Your task to perform on an android device: Check the news Image 0: 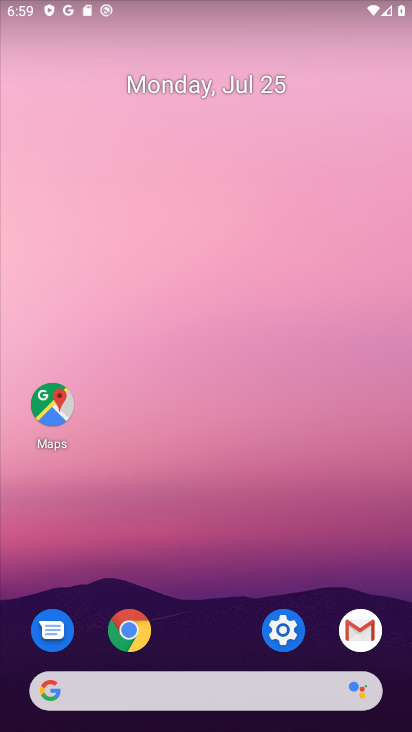
Step 0: click (213, 682)
Your task to perform on an android device: Check the news Image 1: 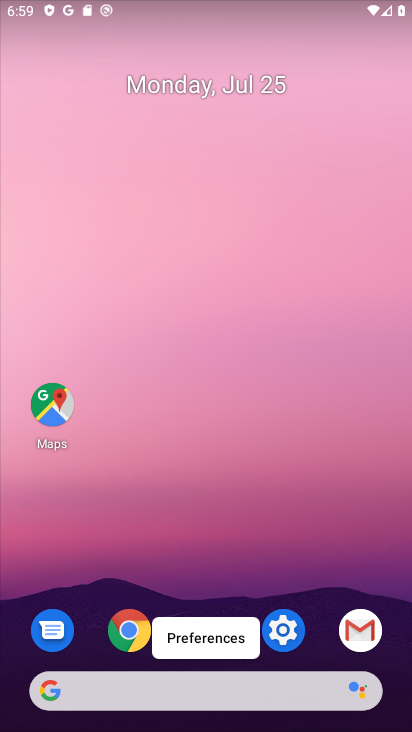
Step 1: click (181, 685)
Your task to perform on an android device: Check the news Image 2: 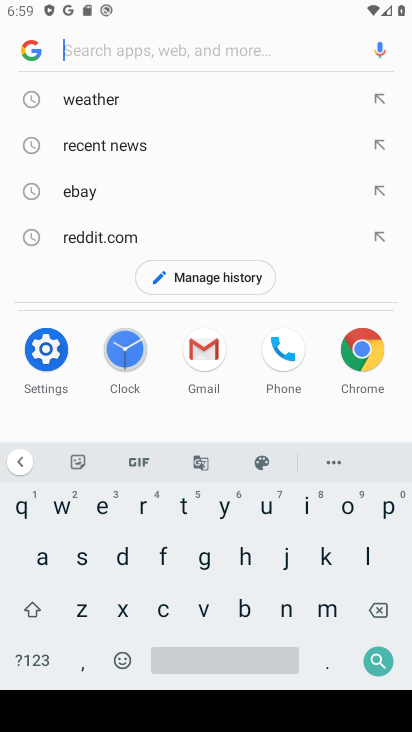
Step 2: click (285, 605)
Your task to perform on an android device: Check the news Image 3: 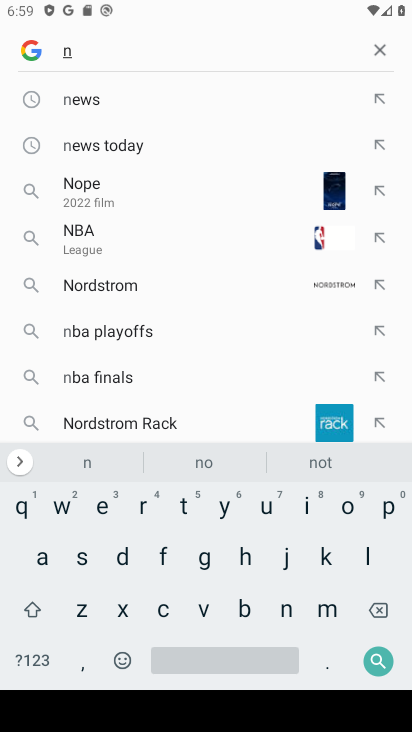
Step 3: click (119, 97)
Your task to perform on an android device: Check the news Image 4: 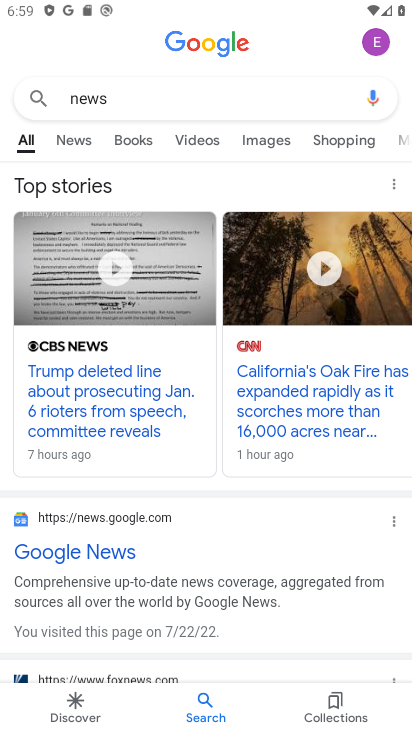
Step 4: task complete